Your task to perform on an android device: Open Google Chrome Image 0: 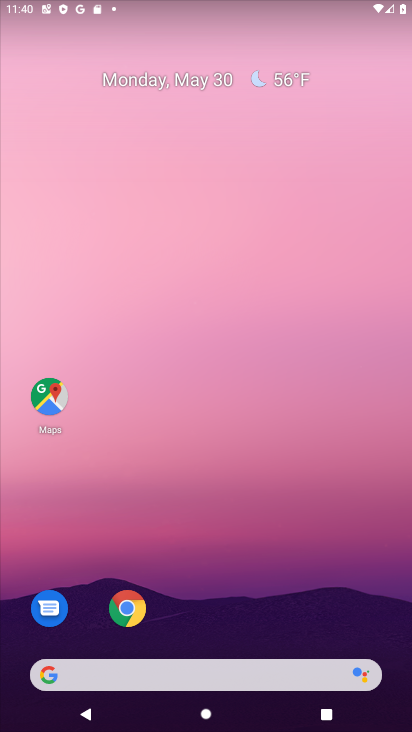
Step 0: drag from (215, 586) to (290, 19)
Your task to perform on an android device: Open Google Chrome Image 1: 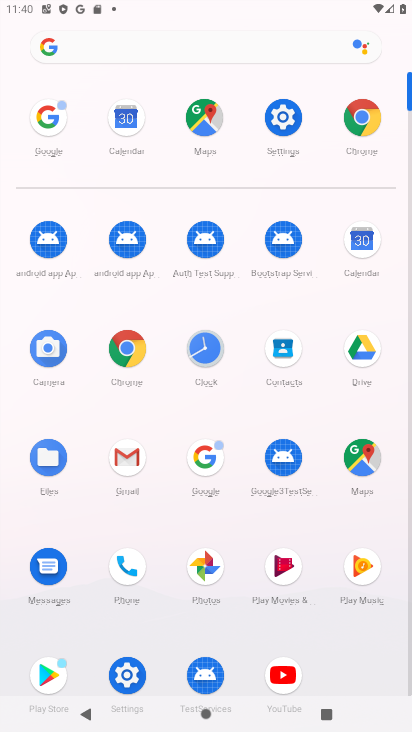
Step 1: click (127, 352)
Your task to perform on an android device: Open Google Chrome Image 2: 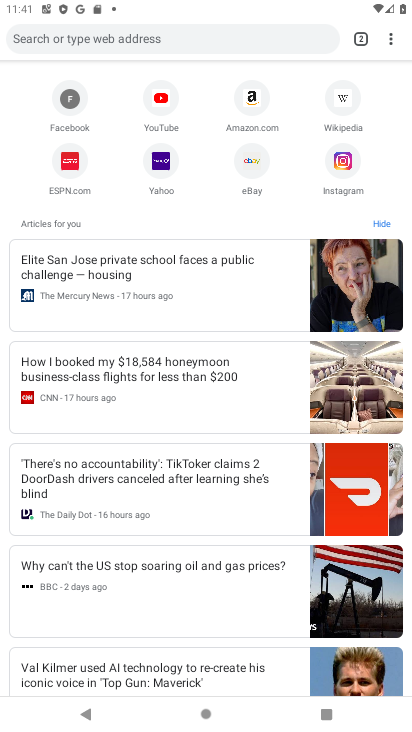
Step 2: task complete